Your task to perform on an android device: turn off translation in the chrome app Image 0: 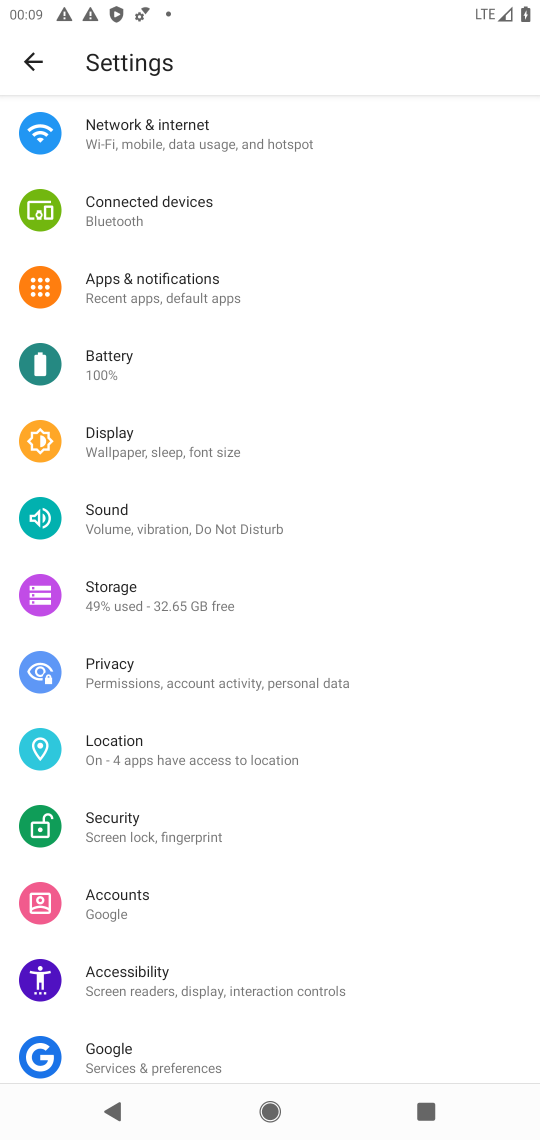
Step 0: press home button
Your task to perform on an android device: turn off translation in the chrome app Image 1: 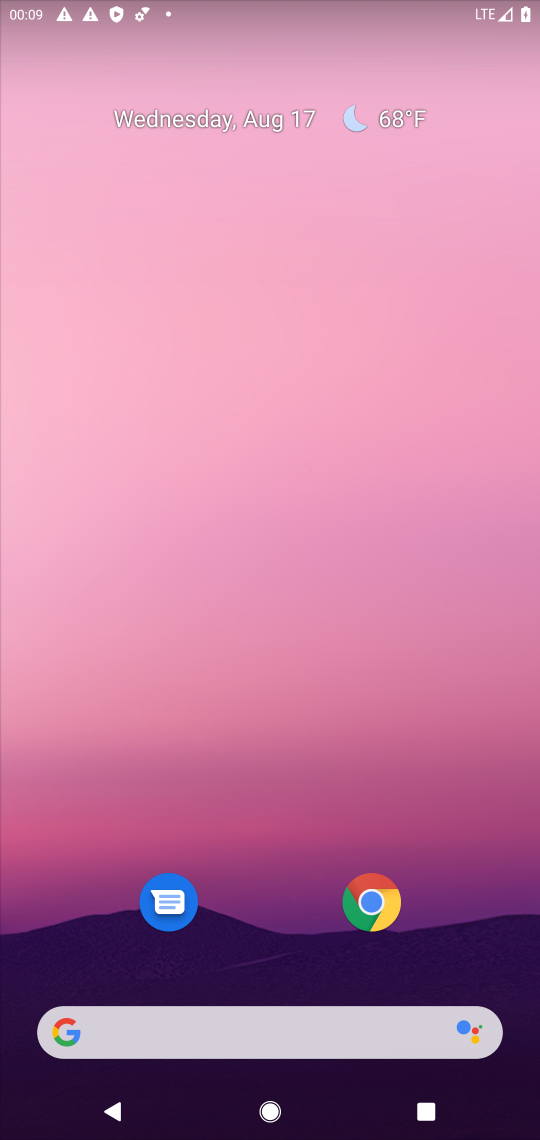
Step 1: click (370, 904)
Your task to perform on an android device: turn off translation in the chrome app Image 2: 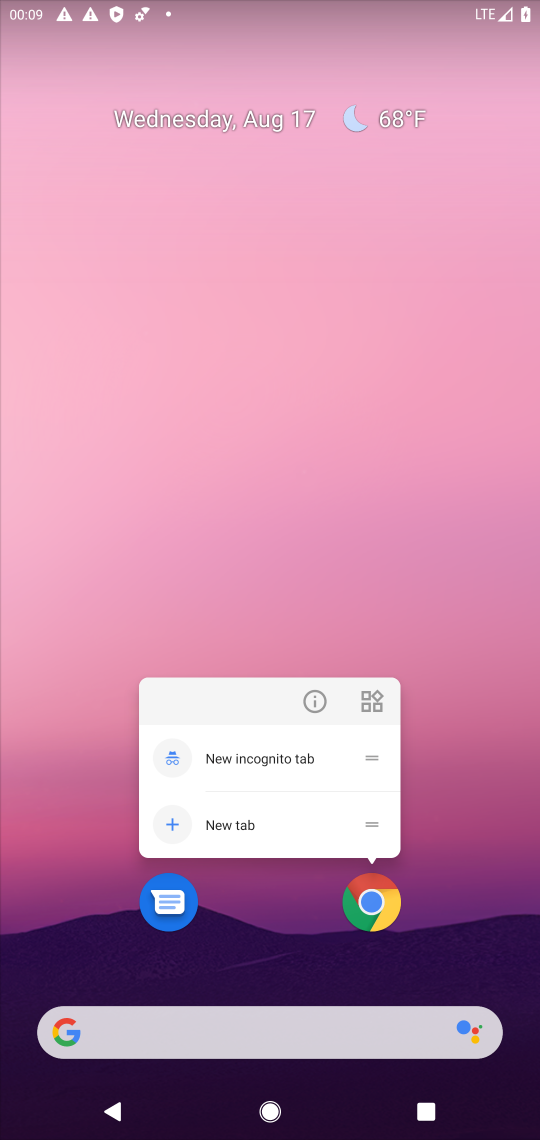
Step 2: click (376, 913)
Your task to perform on an android device: turn off translation in the chrome app Image 3: 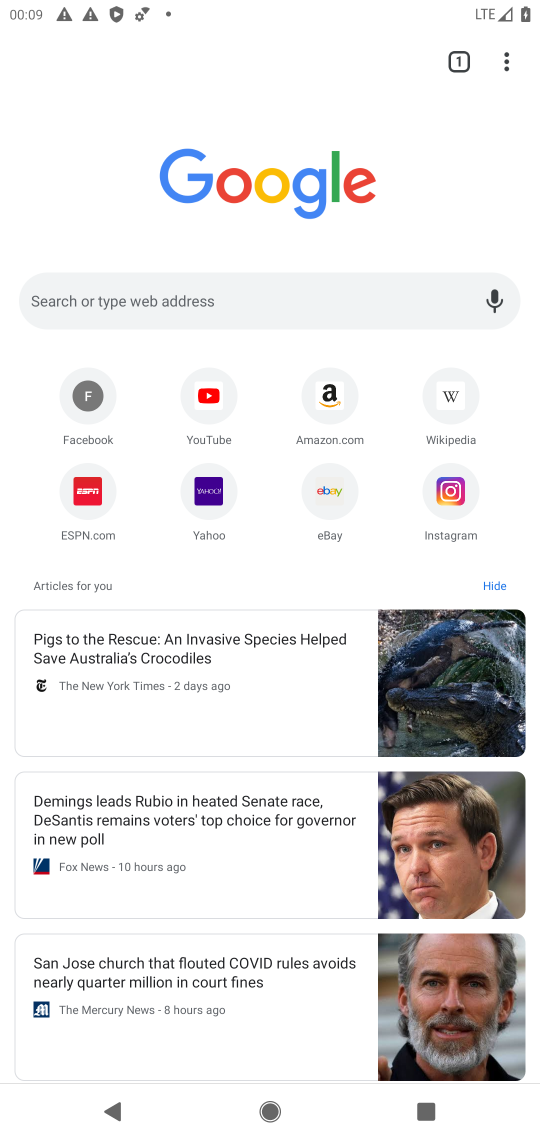
Step 3: click (503, 68)
Your task to perform on an android device: turn off translation in the chrome app Image 4: 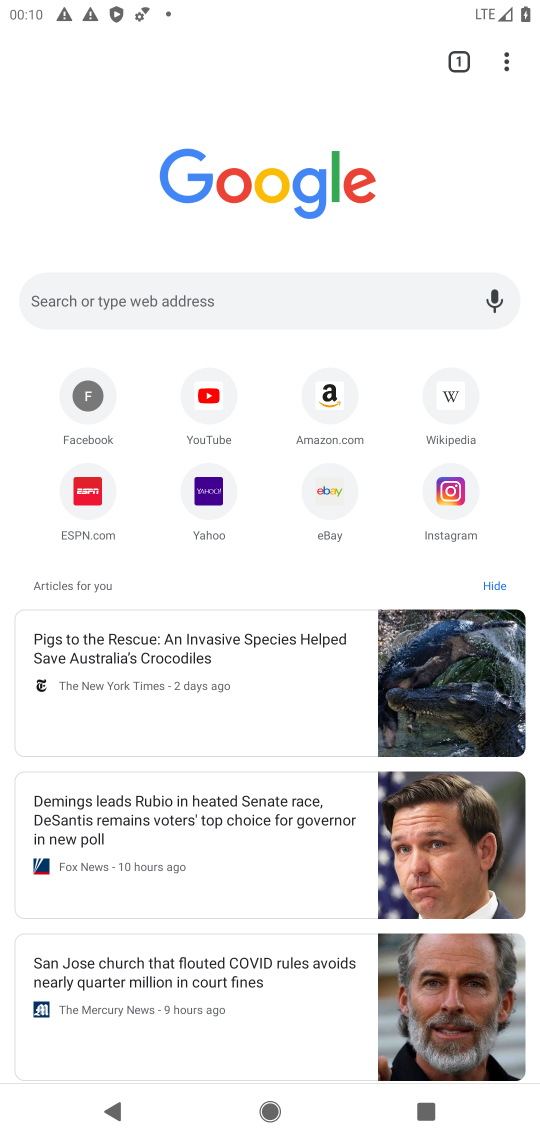
Step 4: click (493, 49)
Your task to perform on an android device: turn off translation in the chrome app Image 5: 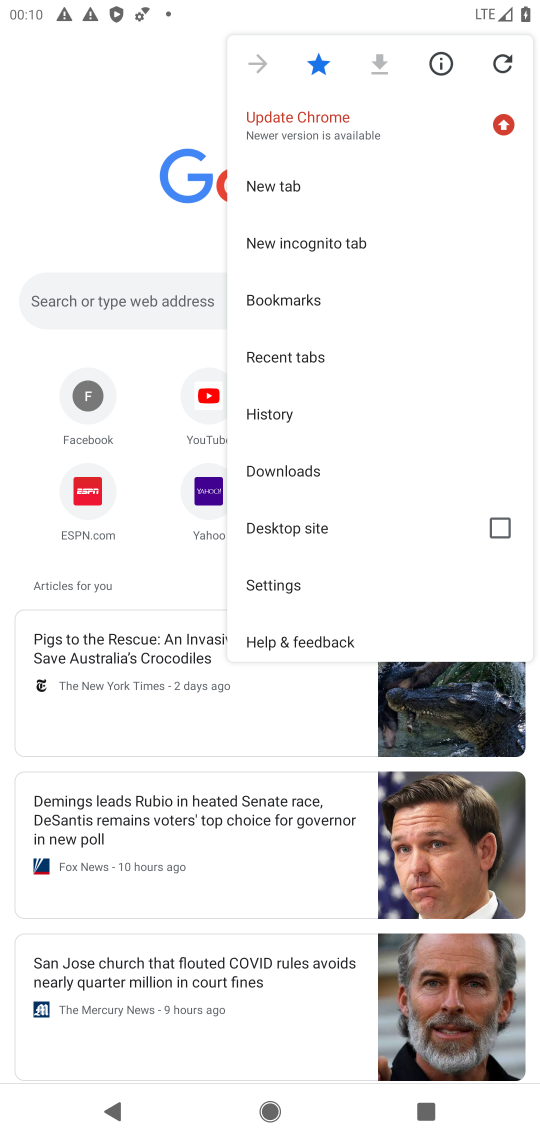
Step 5: click (290, 582)
Your task to perform on an android device: turn off translation in the chrome app Image 6: 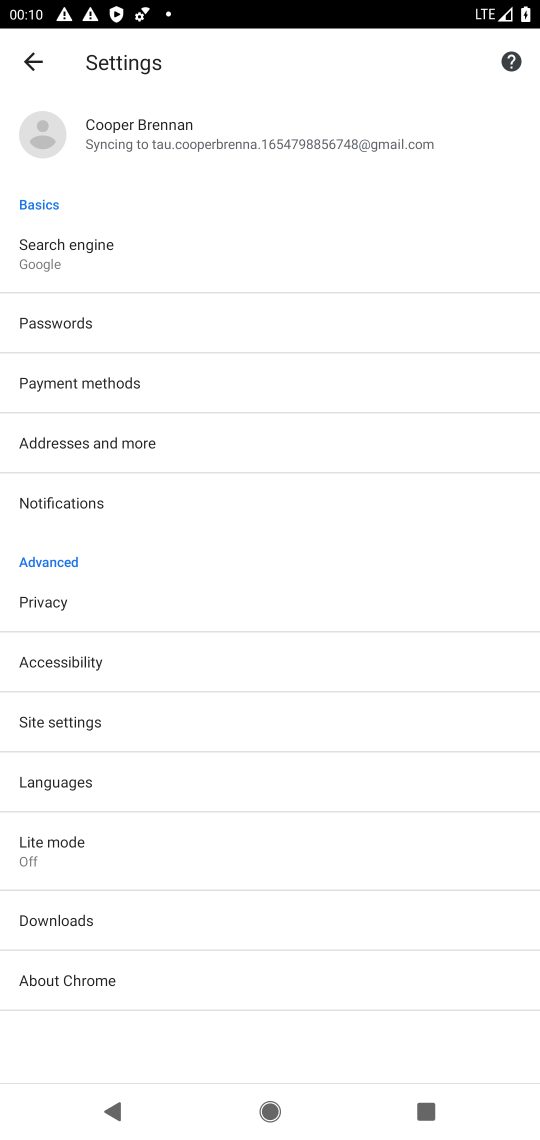
Step 6: click (128, 784)
Your task to perform on an android device: turn off translation in the chrome app Image 7: 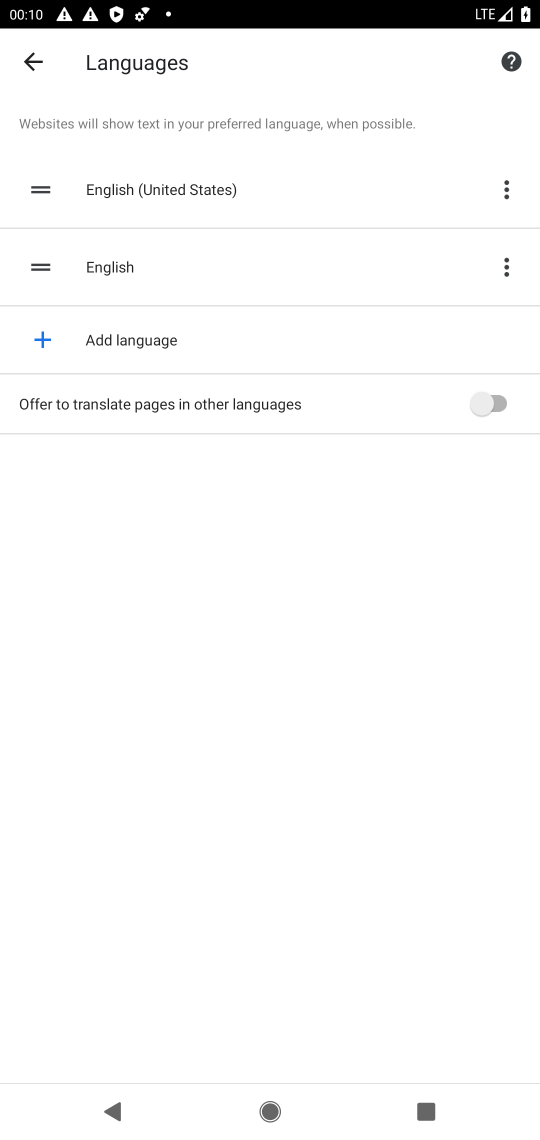
Step 7: task complete